Your task to perform on an android device: open a bookmark in the chrome app Image 0: 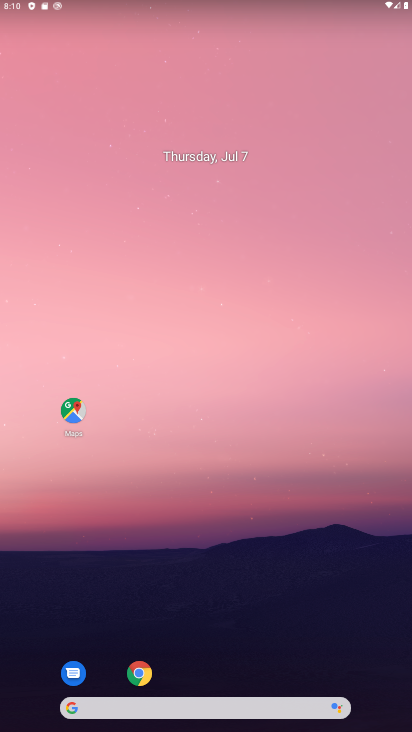
Step 0: drag from (202, 674) to (201, 132)
Your task to perform on an android device: open a bookmark in the chrome app Image 1: 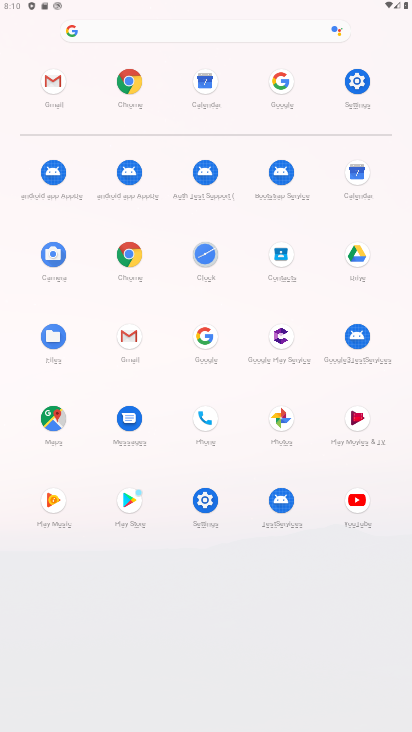
Step 1: click (138, 257)
Your task to perform on an android device: open a bookmark in the chrome app Image 2: 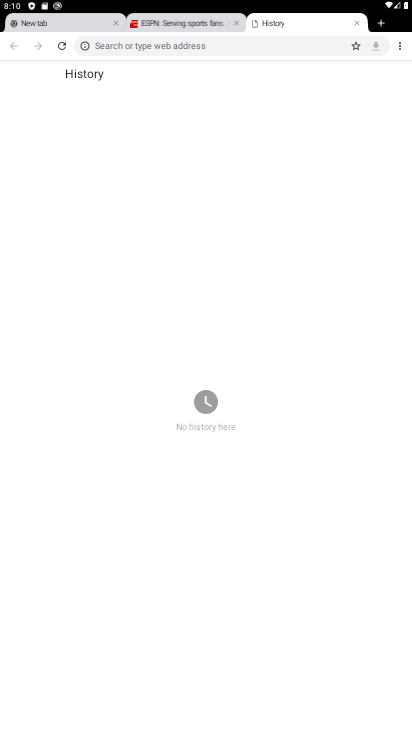
Step 2: drag from (149, 237) to (187, 491)
Your task to perform on an android device: open a bookmark in the chrome app Image 3: 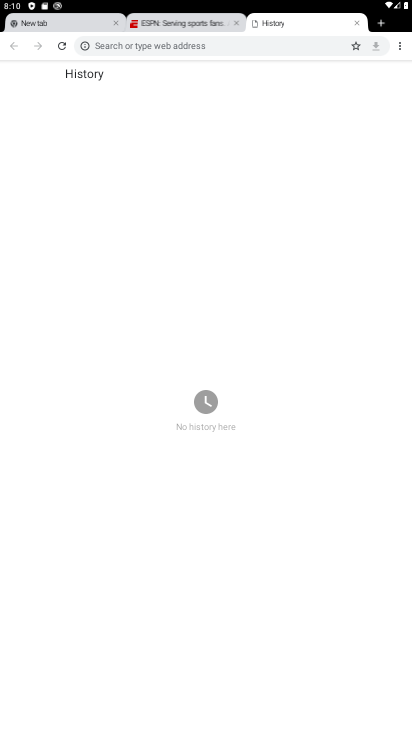
Step 3: click (400, 44)
Your task to perform on an android device: open a bookmark in the chrome app Image 4: 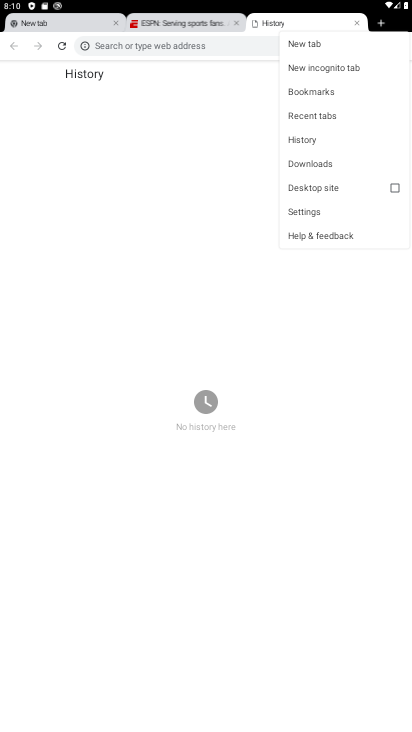
Step 4: click (313, 99)
Your task to perform on an android device: open a bookmark in the chrome app Image 5: 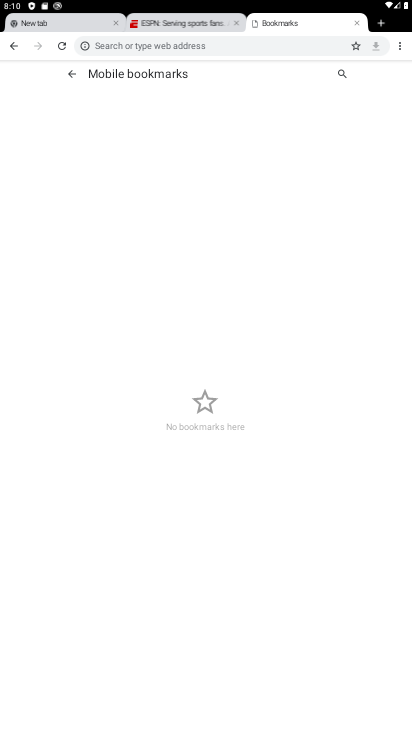
Step 5: task complete